Your task to perform on an android device: star an email in the gmail app Image 0: 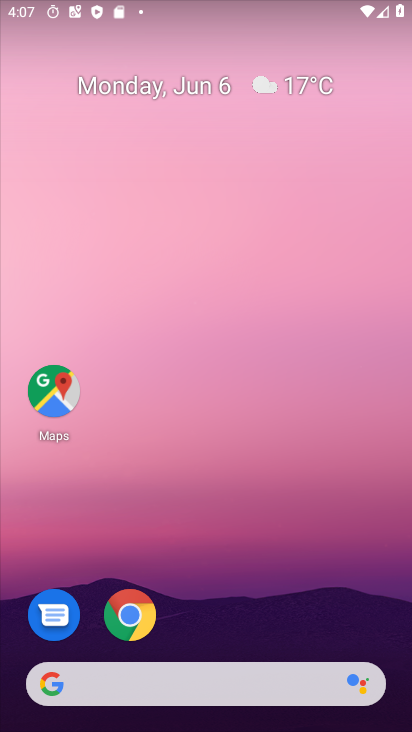
Step 0: drag from (285, 657) to (317, 65)
Your task to perform on an android device: star an email in the gmail app Image 1: 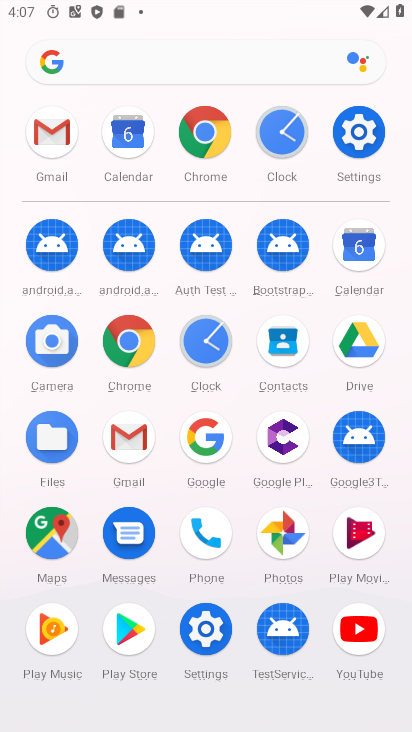
Step 1: click (130, 437)
Your task to perform on an android device: star an email in the gmail app Image 2: 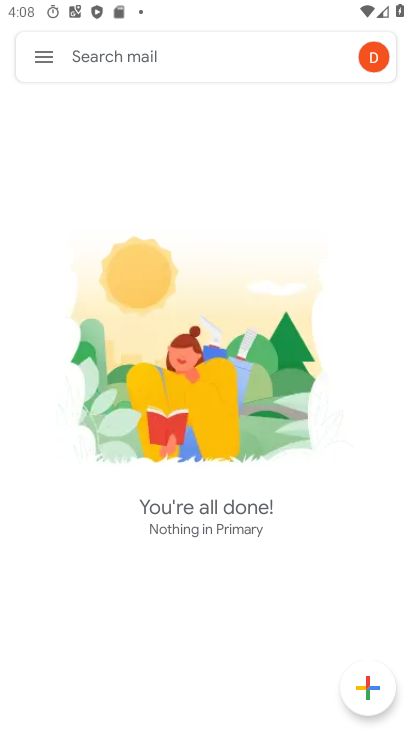
Step 2: click (56, 56)
Your task to perform on an android device: star an email in the gmail app Image 3: 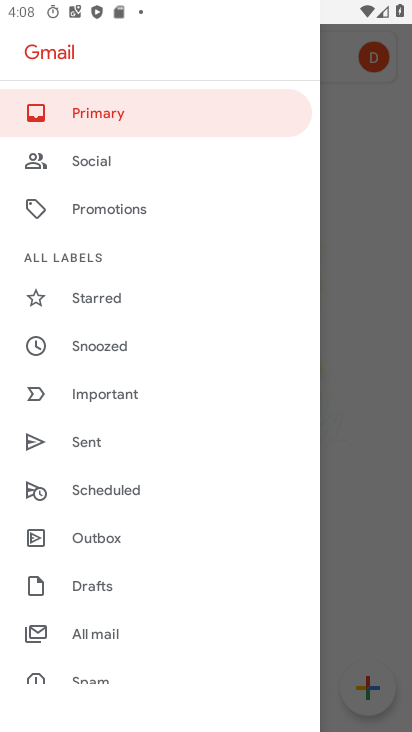
Step 3: click (132, 298)
Your task to perform on an android device: star an email in the gmail app Image 4: 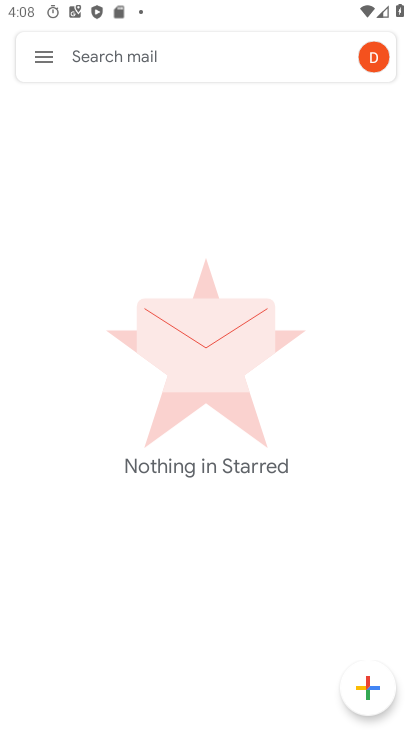
Step 4: task complete